Your task to perform on an android device: turn off sleep mode Image 0: 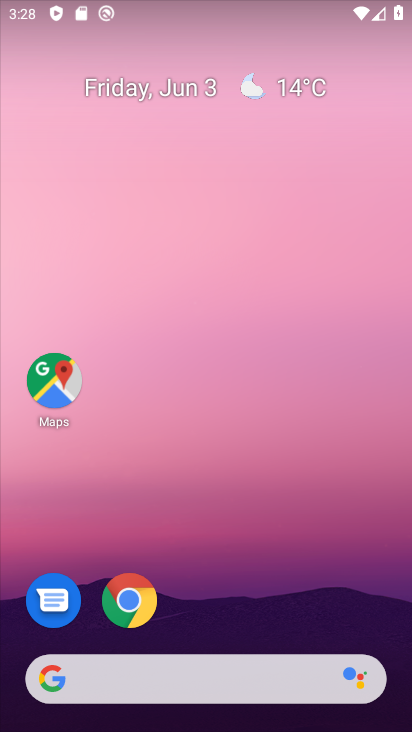
Step 0: press home button
Your task to perform on an android device: turn off sleep mode Image 1: 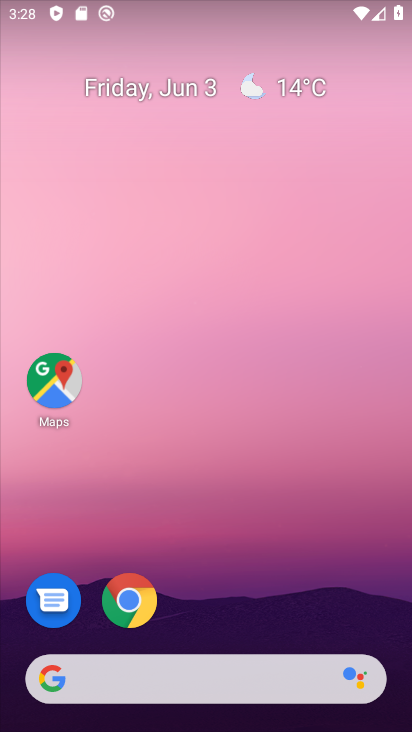
Step 1: drag from (6, 525) to (287, 173)
Your task to perform on an android device: turn off sleep mode Image 2: 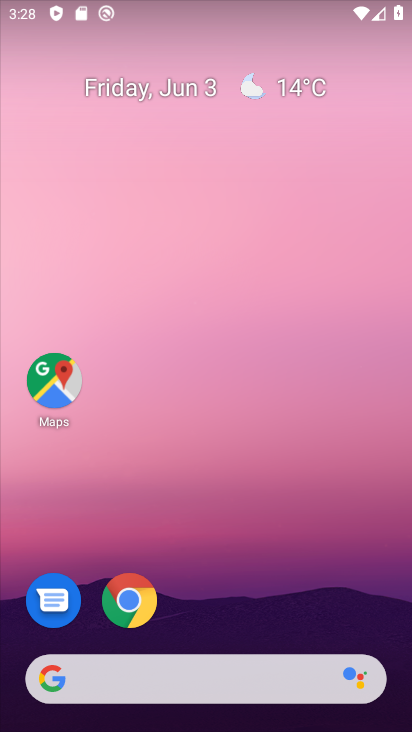
Step 2: drag from (6, 635) to (307, 108)
Your task to perform on an android device: turn off sleep mode Image 3: 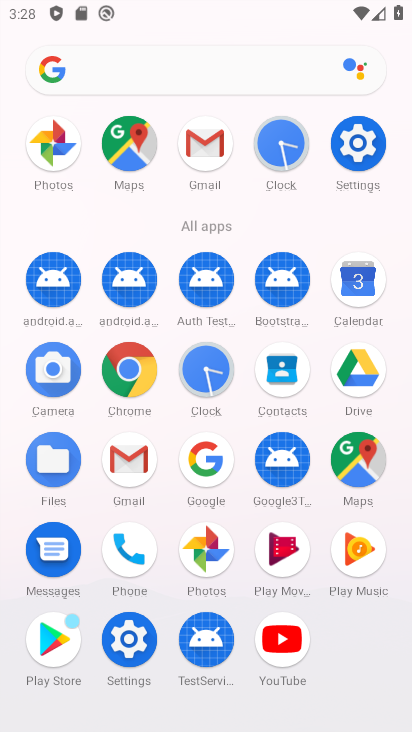
Step 3: click (347, 136)
Your task to perform on an android device: turn off sleep mode Image 4: 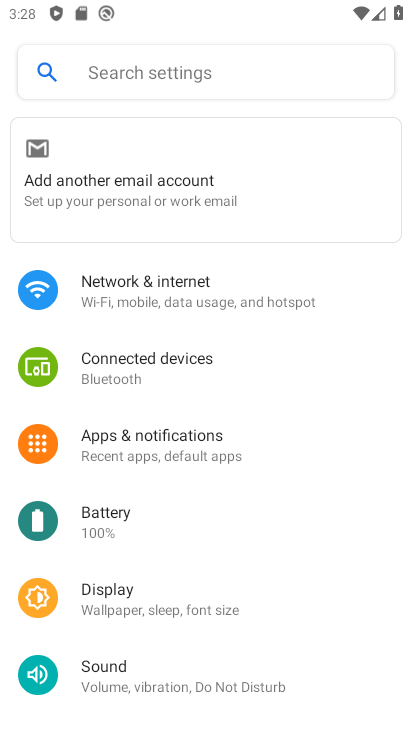
Step 4: click (110, 605)
Your task to perform on an android device: turn off sleep mode Image 5: 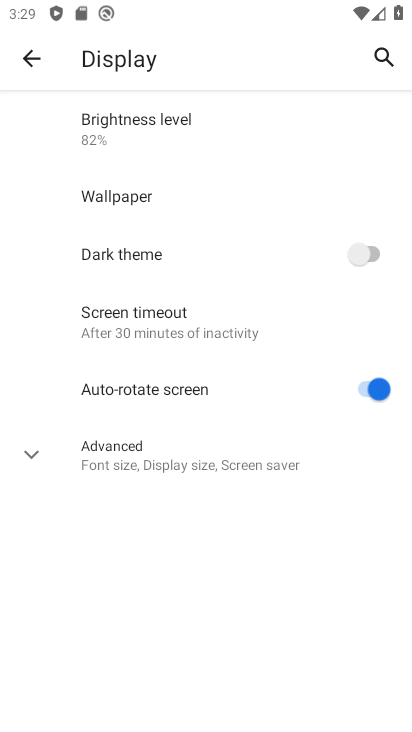
Step 5: task complete